Your task to perform on an android device: Open settings on Google Maps Image 0: 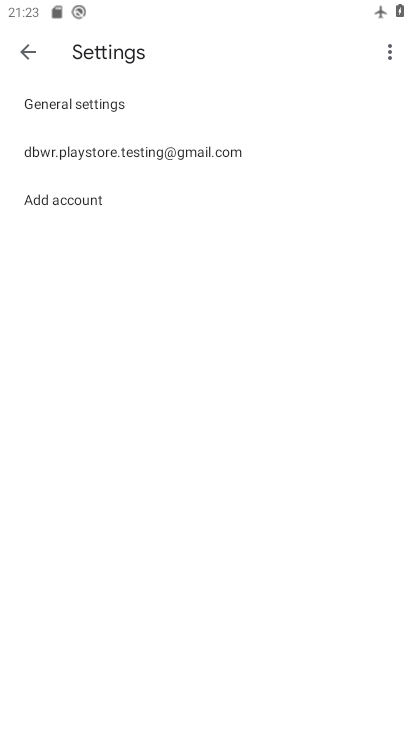
Step 0: press home button
Your task to perform on an android device: Open settings on Google Maps Image 1: 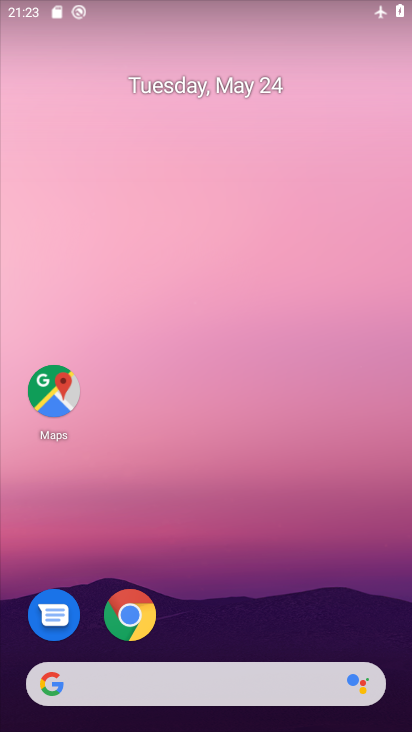
Step 1: click (53, 378)
Your task to perform on an android device: Open settings on Google Maps Image 2: 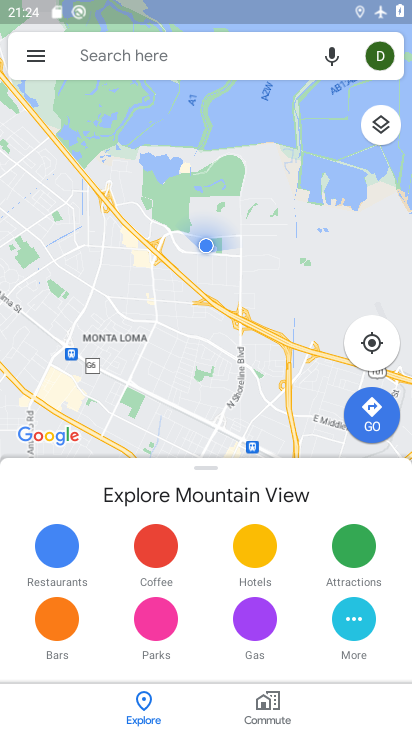
Step 2: click (23, 54)
Your task to perform on an android device: Open settings on Google Maps Image 3: 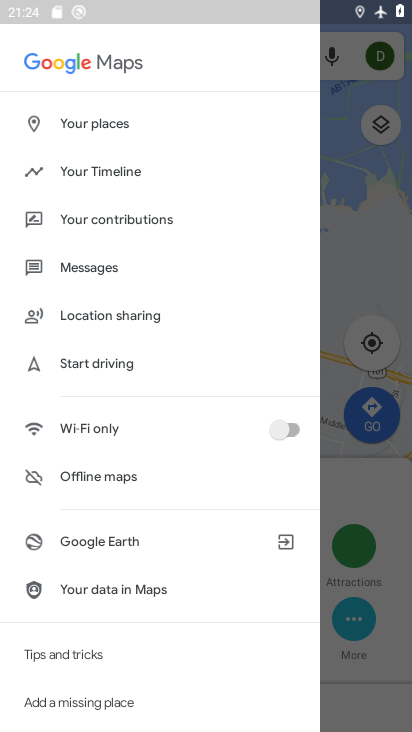
Step 3: drag from (172, 534) to (200, 156)
Your task to perform on an android device: Open settings on Google Maps Image 4: 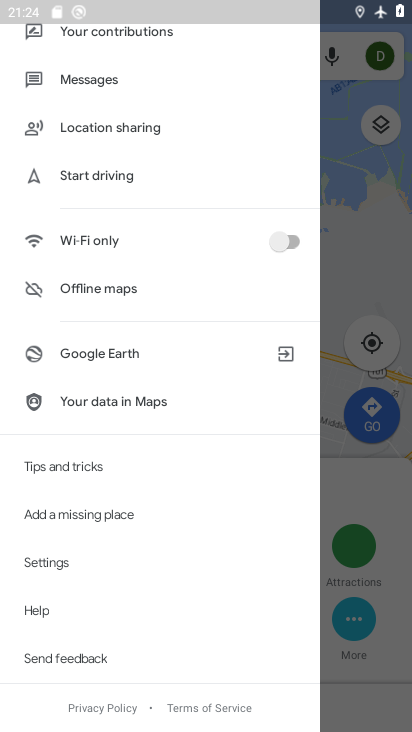
Step 4: click (97, 552)
Your task to perform on an android device: Open settings on Google Maps Image 5: 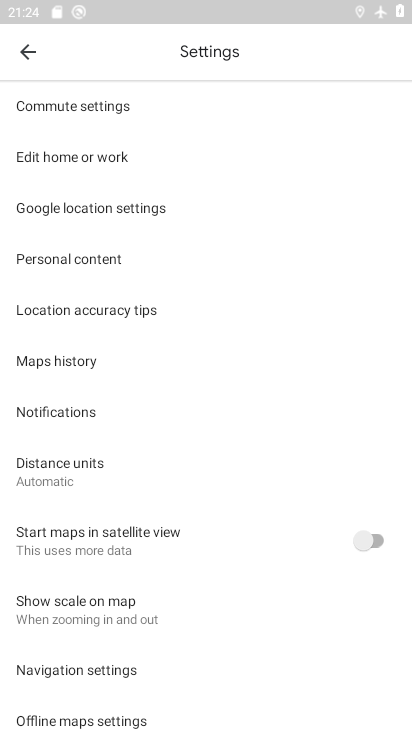
Step 5: task complete